Your task to perform on an android device: Open the stopwatch Image 0: 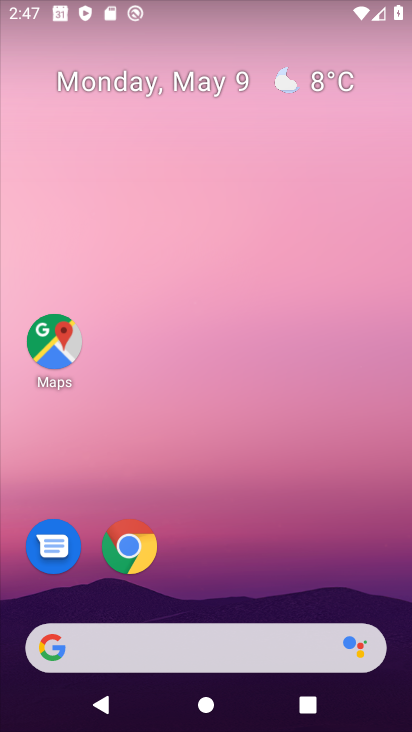
Step 0: drag from (278, 526) to (280, 26)
Your task to perform on an android device: Open the stopwatch Image 1: 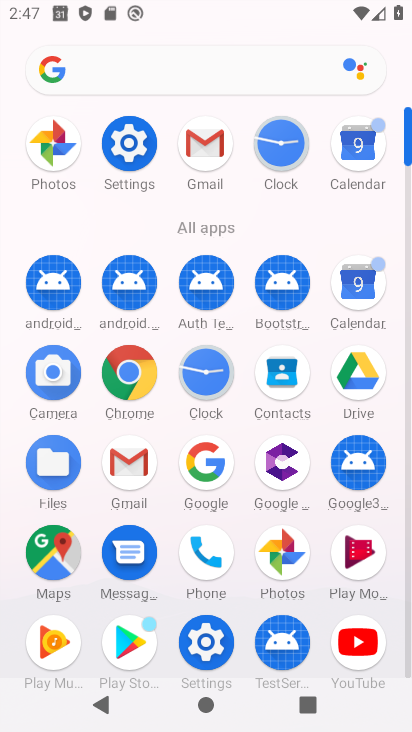
Step 1: click (267, 150)
Your task to perform on an android device: Open the stopwatch Image 2: 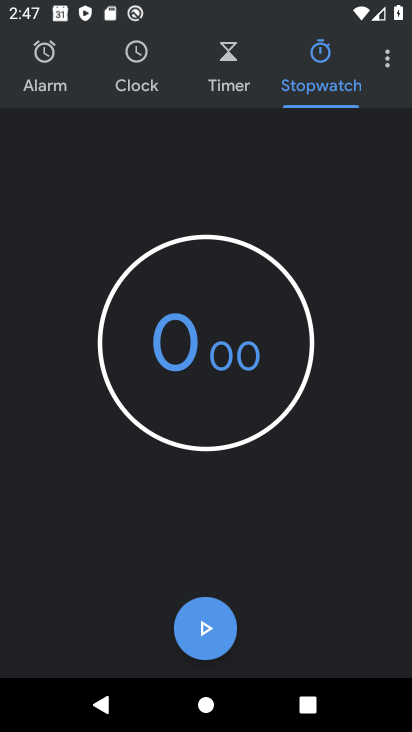
Step 2: task complete